Your task to perform on an android device: Show me popular games on the Play Store Image 0: 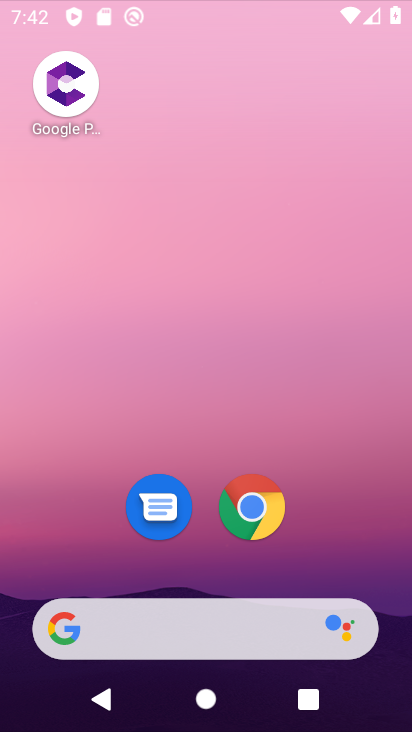
Step 0: click (291, 79)
Your task to perform on an android device: Show me popular games on the Play Store Image 1: 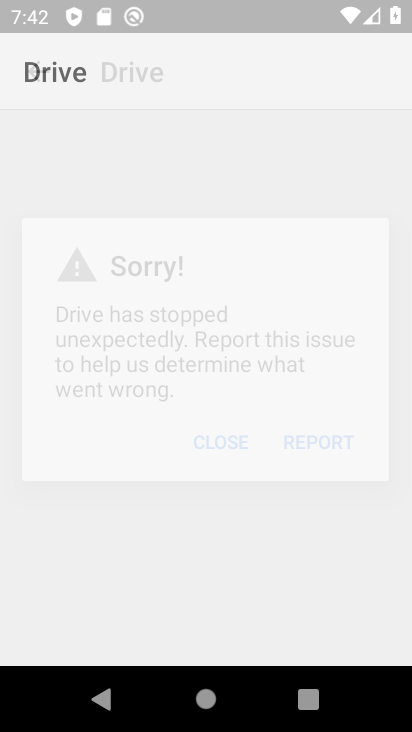
Step 1: drag from (392, 667) to (378, 272)
Your task to perform on an android device: Show me popular games on the Play Store Image 2: 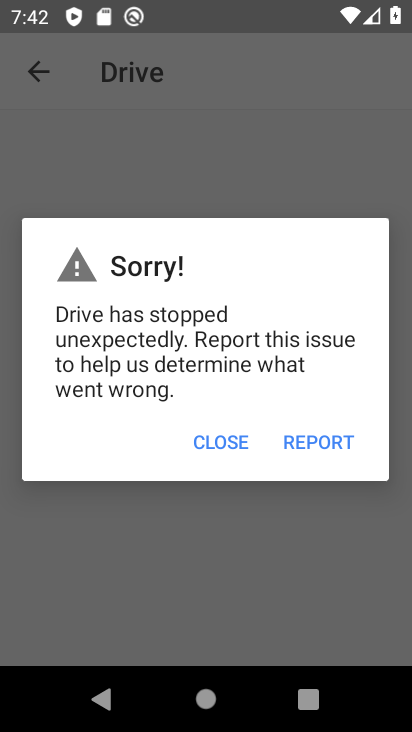
Step 2: press home button
Your task to perform on an android device: Show me popular games on the Play Store Image 3: 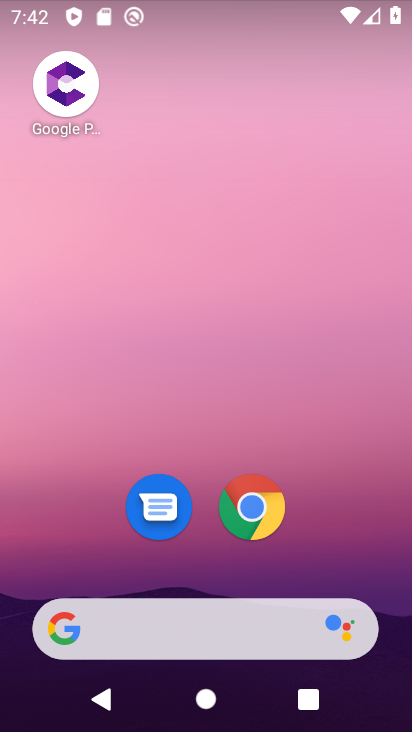
Step 3: drag from (372, 588) to (352, 20)
Your task to perform on an android device: Show me popular games on the Play Store Image 4: 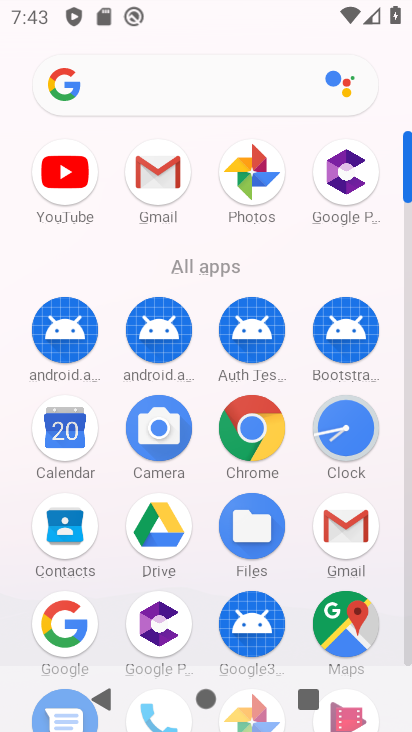
Step 4: drag from (3, 539) to (6, 209)
Your task to perform on an android device: Show me popular games on the Play Store Image 5: 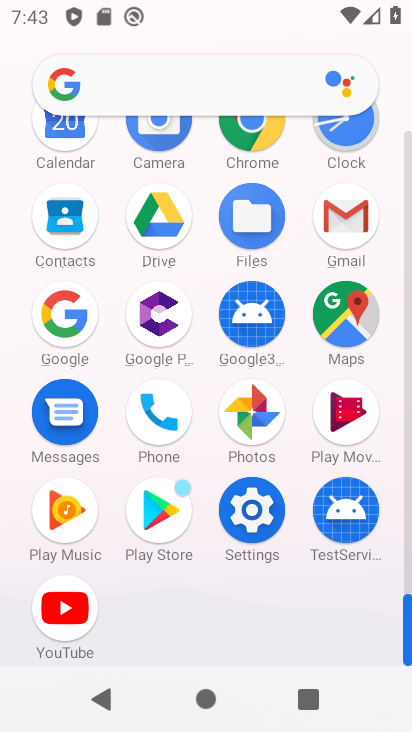
Step 5: click (163, 511)
Your task to perform on an android device: Show me popular games on the Play Store Image 6: 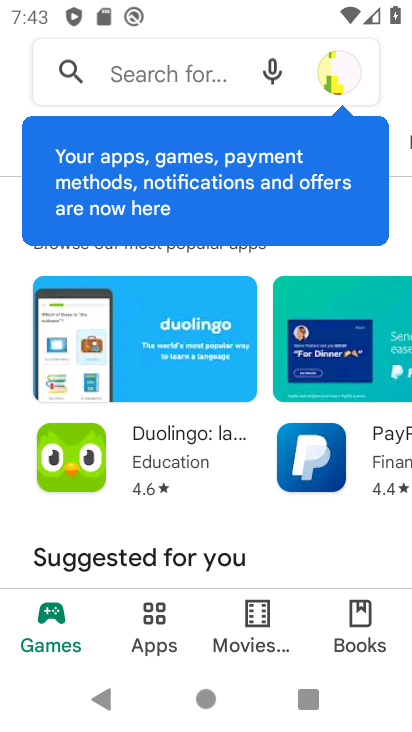
Step 6: task complete